Your task to perform on an android device: Open the phone app and click the voicemail tab. Image 0: 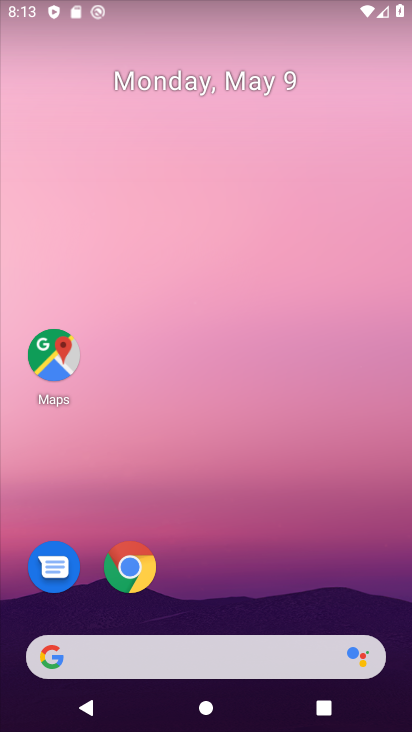
Step 0: drag from (322, 579) to (303, 255)
Your task to perform on an android device: Open the phone app and click the voicemail tab. Image 1: 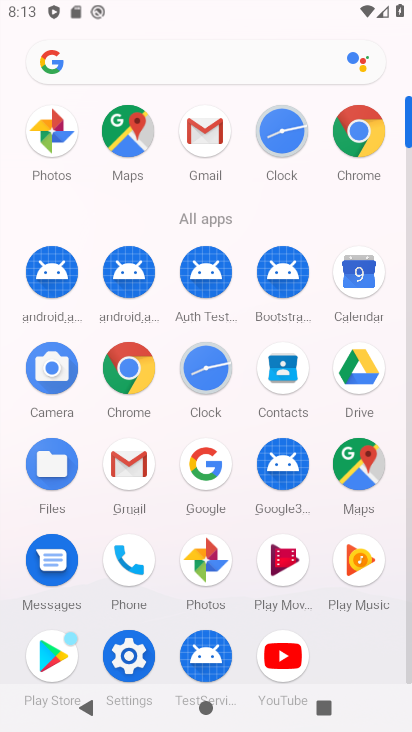
Step 1: click (128, 560)
Your task to perform on an android device: Open the phone app and click the voicemail tab. Image 2: 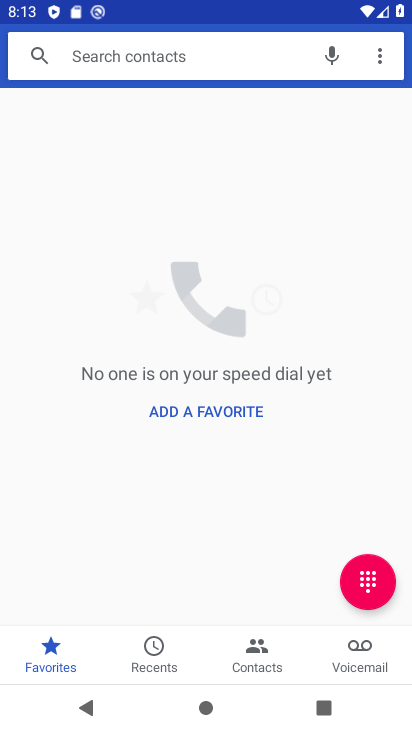
Step 2: click (355, 647)
Your task to perform on an android device: Open the phone app and click the voicemail tab. Image 3: 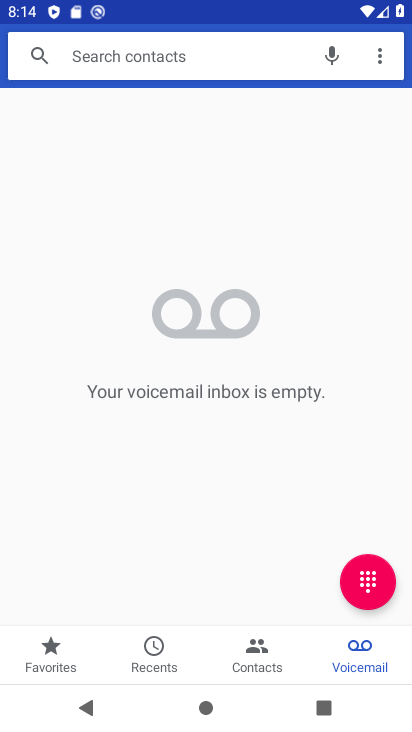
Step 3: task complete